Your task to perform on an android device: Go to location settings Image 0: 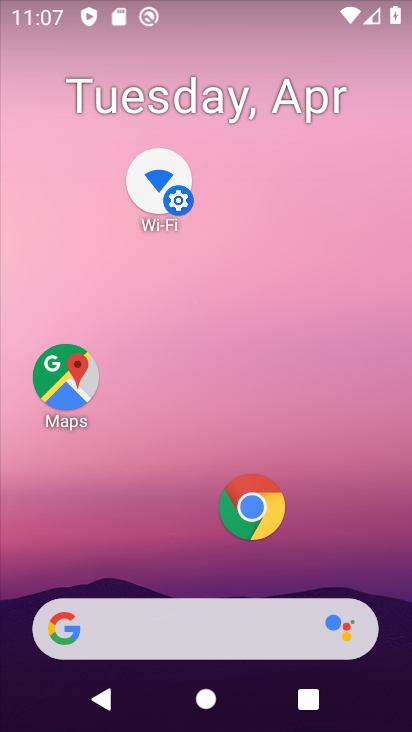
Step 0: drag from (9, 684) to (228, 316)
Your task to perform on an android device: Go to location settings Image 1: 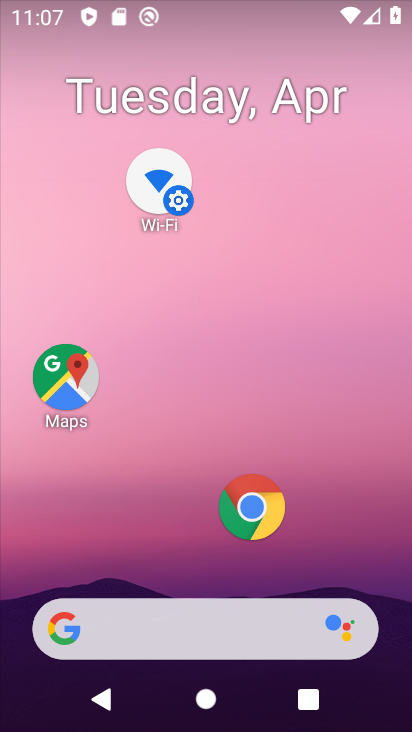
Step 1: drag from (334, 729) to (194, 301)
Your task to perform on an android device: Go to location settings Image 2: 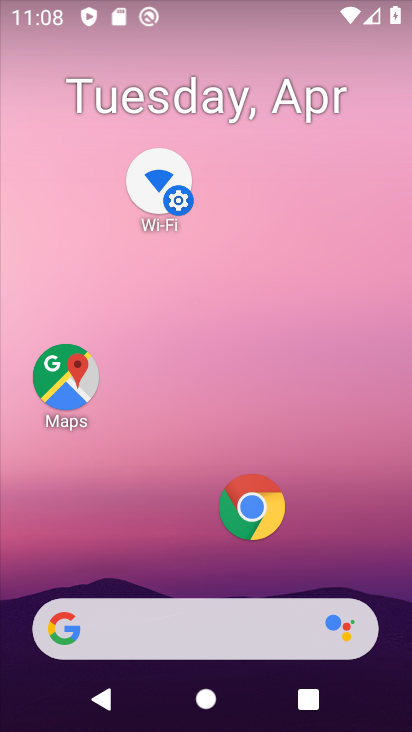
Step 2: press home button
Your task to perform on an android device: Go to location settings Image 3: 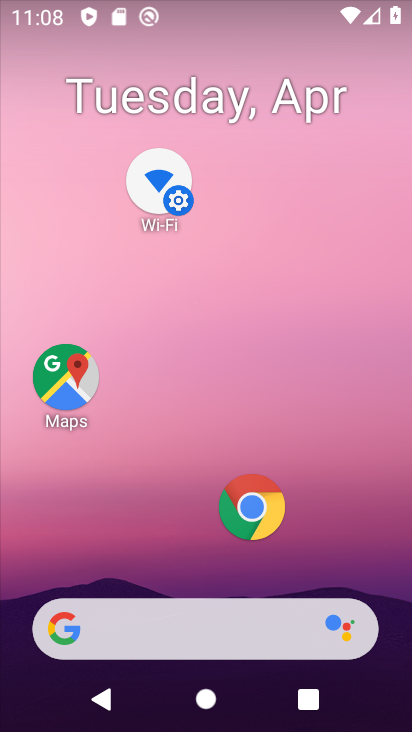
Step 3: drag from (27, 649) to (275, 207)
Your task to perform on an android device: Go to location settings Image 4: 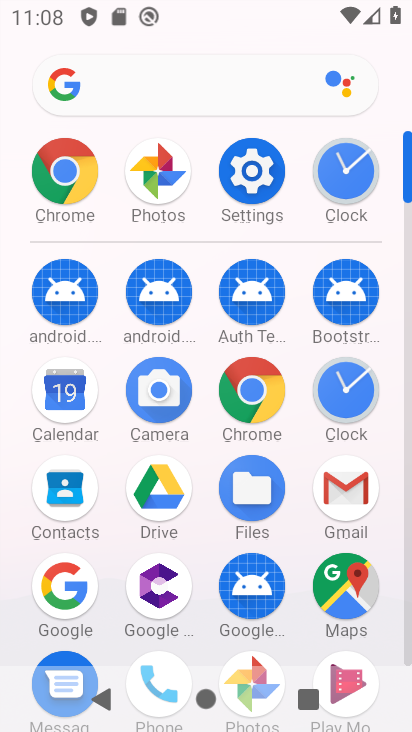
Step 4: click (247, 187)
Your task to perform on an android device: Go to location settings Image 5: 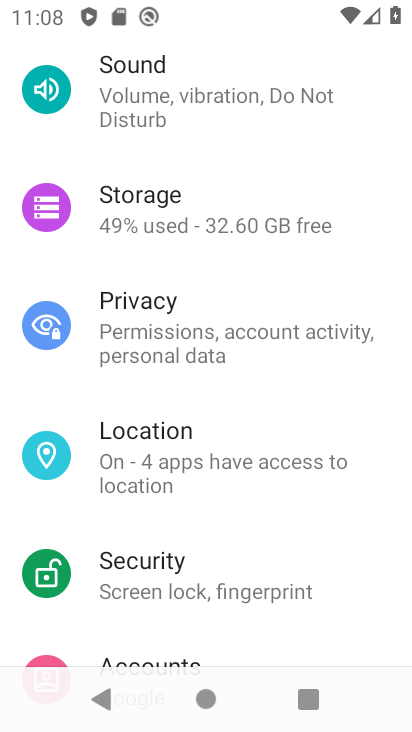
Step 5: click (203, 434)
Your task to perform on an android device: Go to location settings Image 6: 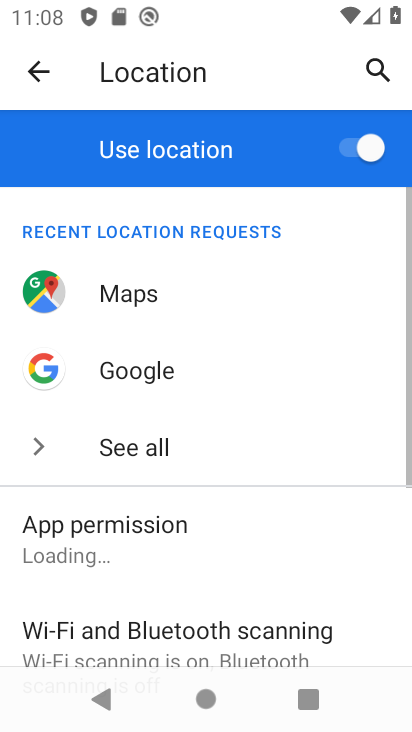
Step 6: task complete